Your task to perform on an android device: set the timer Image 0: 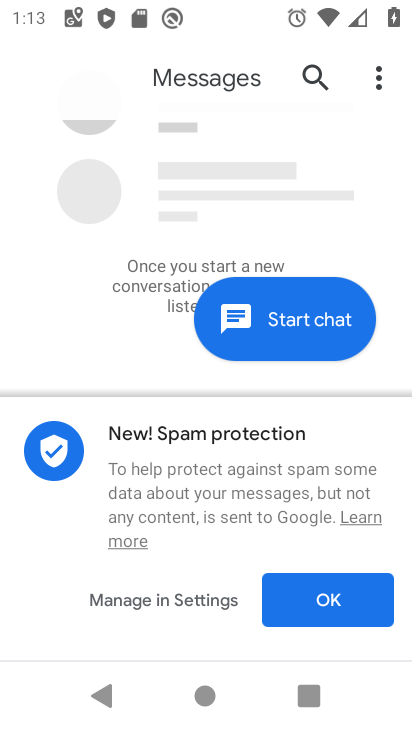
Step 0: press home button
Your task to perform on an android device: set the timer Image 1: 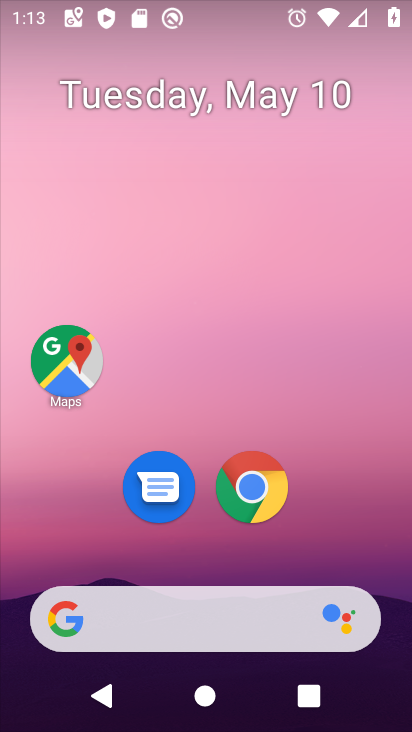
Step 1: drag from (359, 488) to (324, 181)
Your task to perform on an android device: set the timer Image 2: 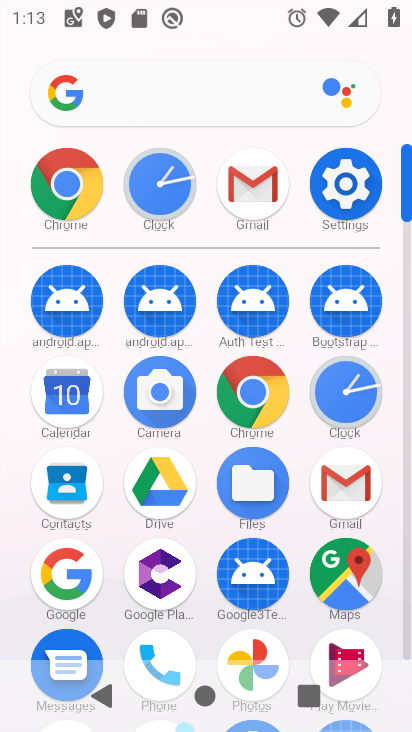
Step 2: click (322, 416)
Your task to perform on an android device: set the timer Image 3: 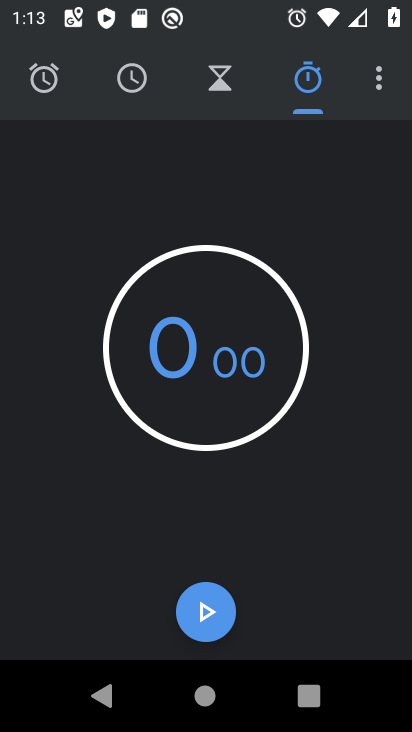
Step 3: task complete